Your task to perform on an android device: read, delete, or share a saved page in the chrome app Image 0: 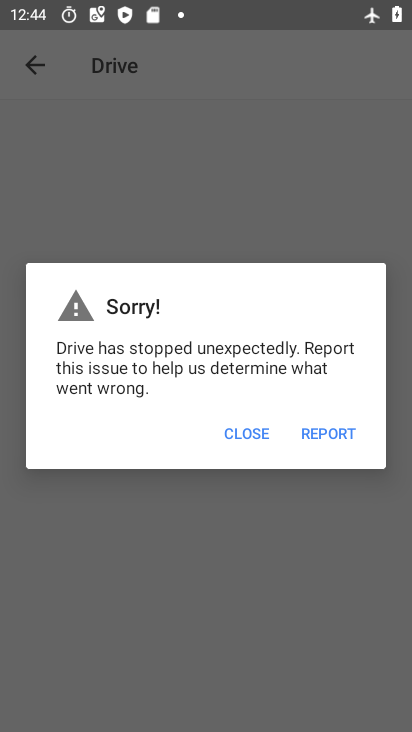
Step 0: press home button
Your task to perform on an android device: read, delete, or share a saved page in the chrome app Image 1: 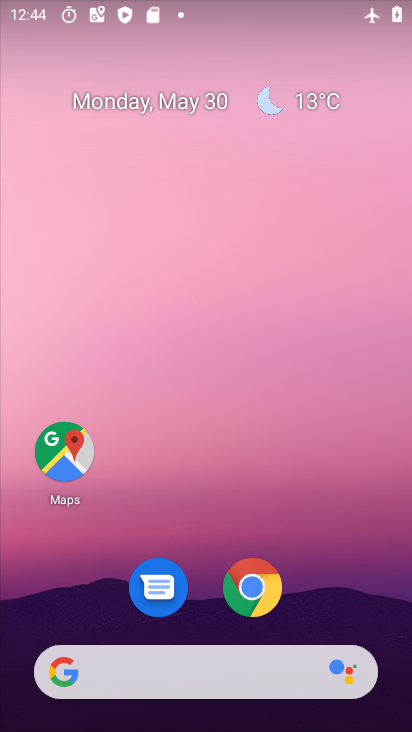
Step 1: click (247, 582)
Your task to perform on an android device: read, delete, or share a saved page in the chrome app Image 2: 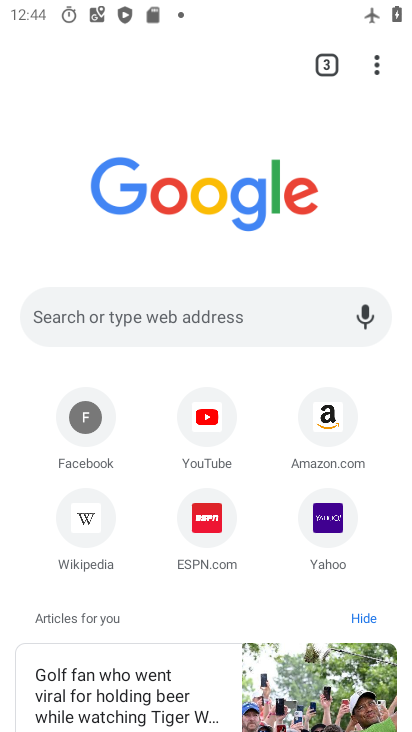
Step 2: task complete